Your task to perform on an android device: change text size in settings app Image 0: 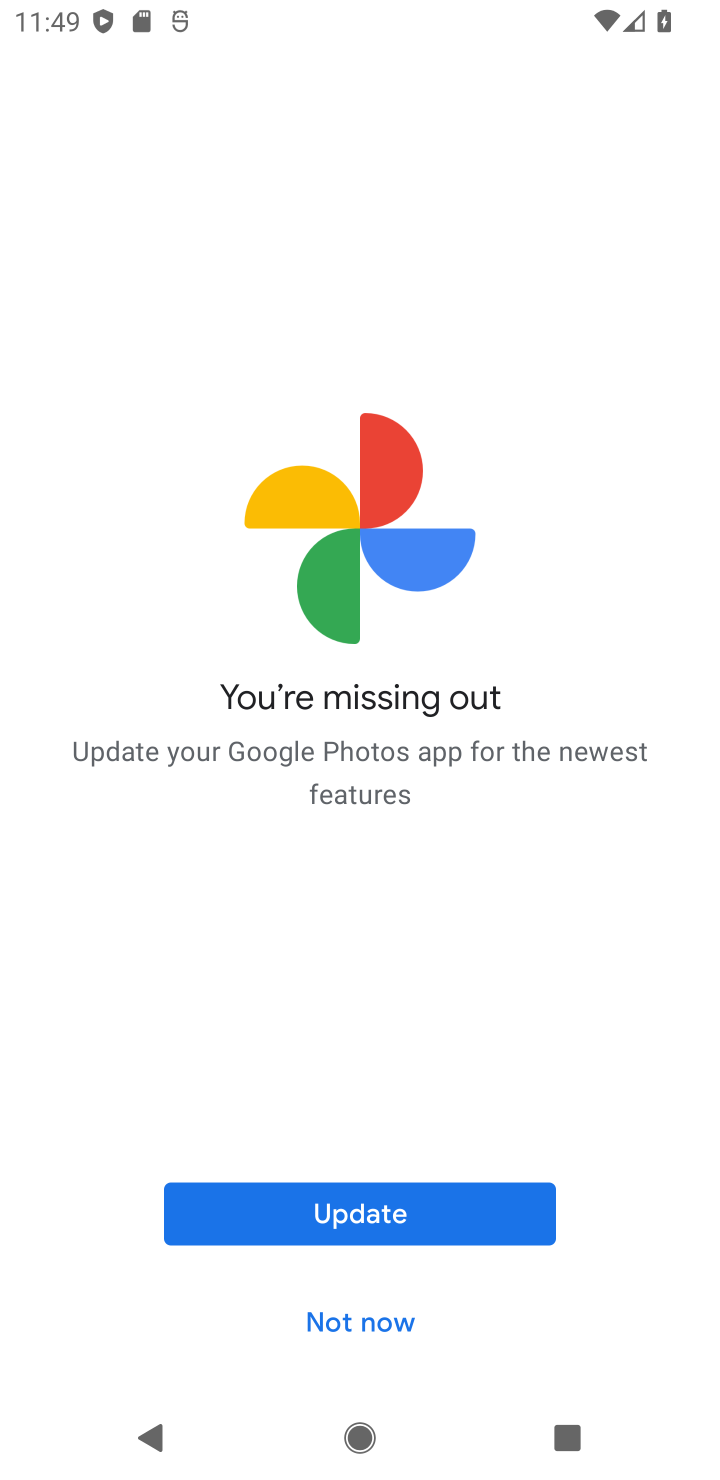
Step 0: press home button
Your task to perform on an android device: change text size in settings app Image 1: 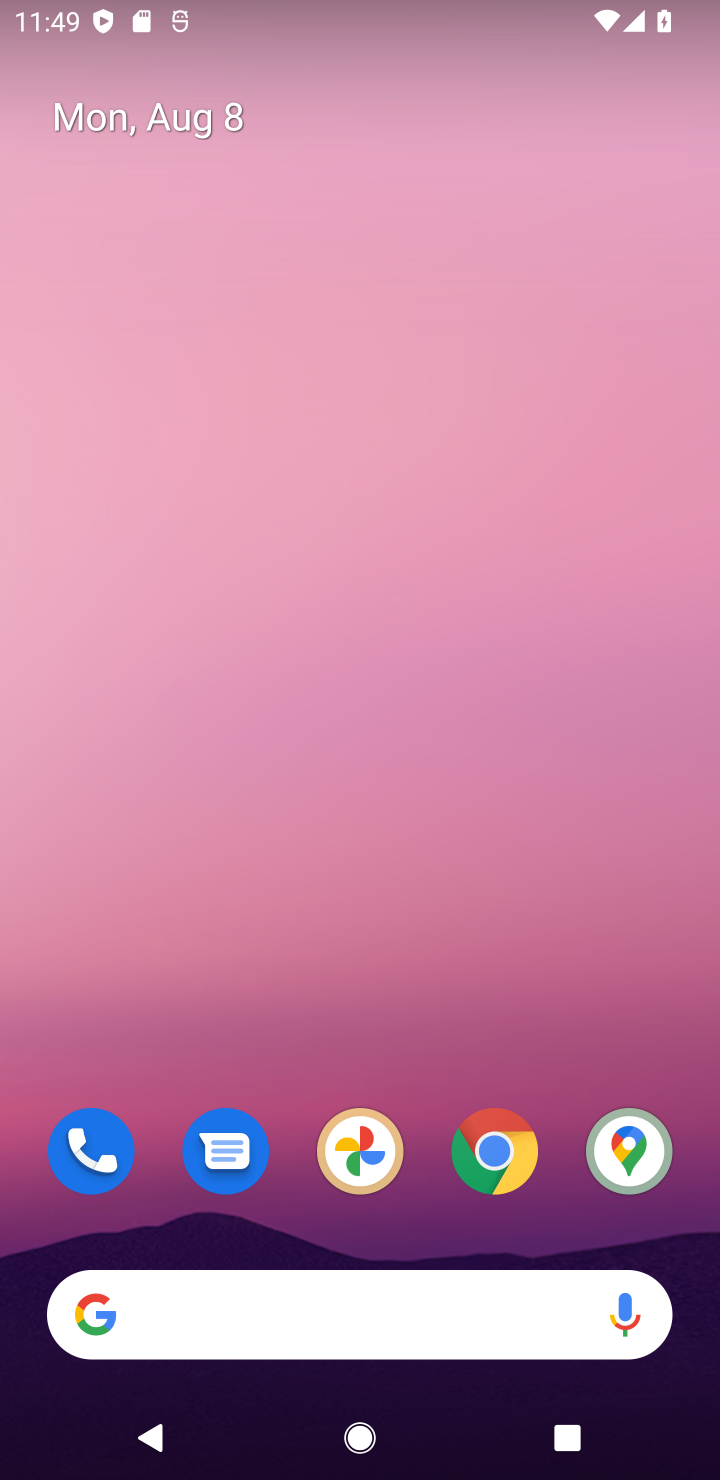
Step 1: drag from (395, 1293) to (252, 701)
Your task to perform on an android device: change text size in settings app Image 2: 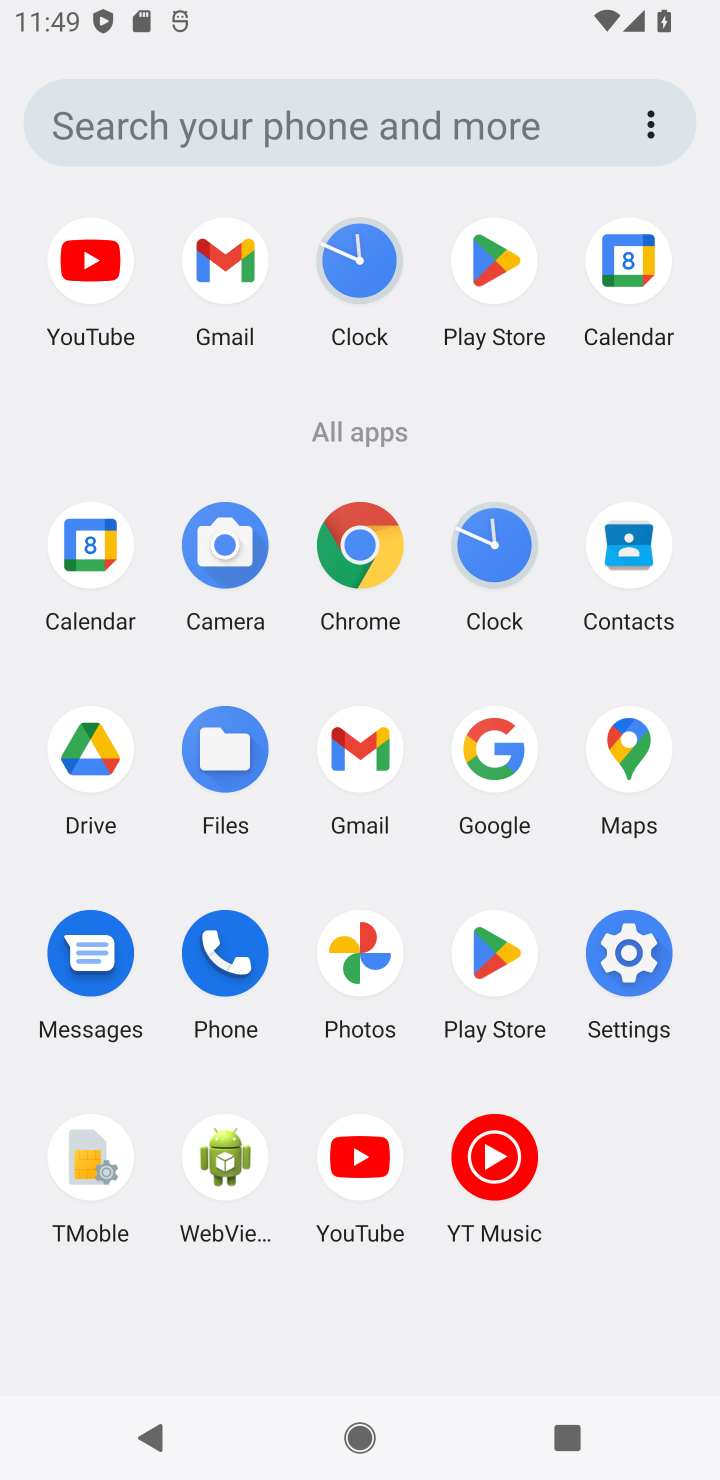
Step 2: click (587, 937)
Your task to perform on an android device: change text size in settings app Image 3: 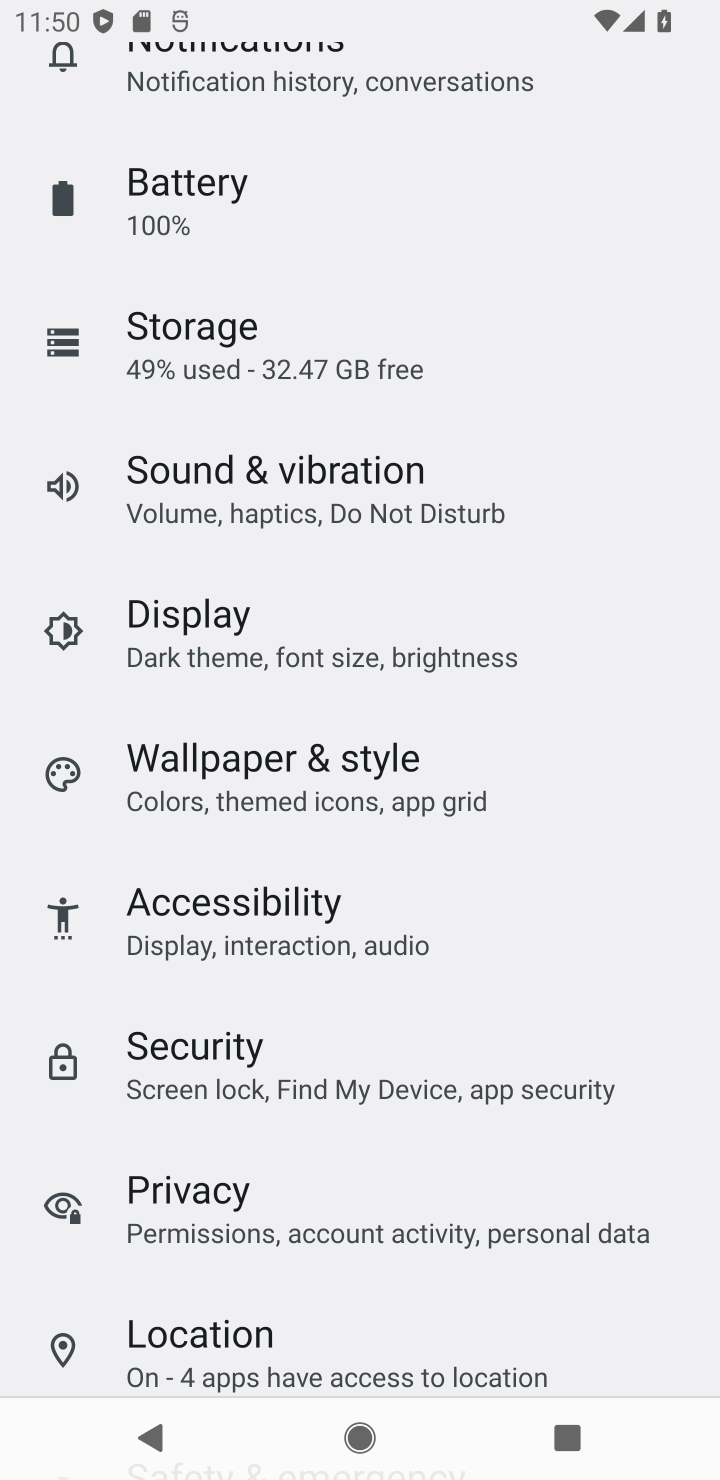
Step 3: click (283, 936)
Your task to perform on an android device: change text size in settings app Image 4: 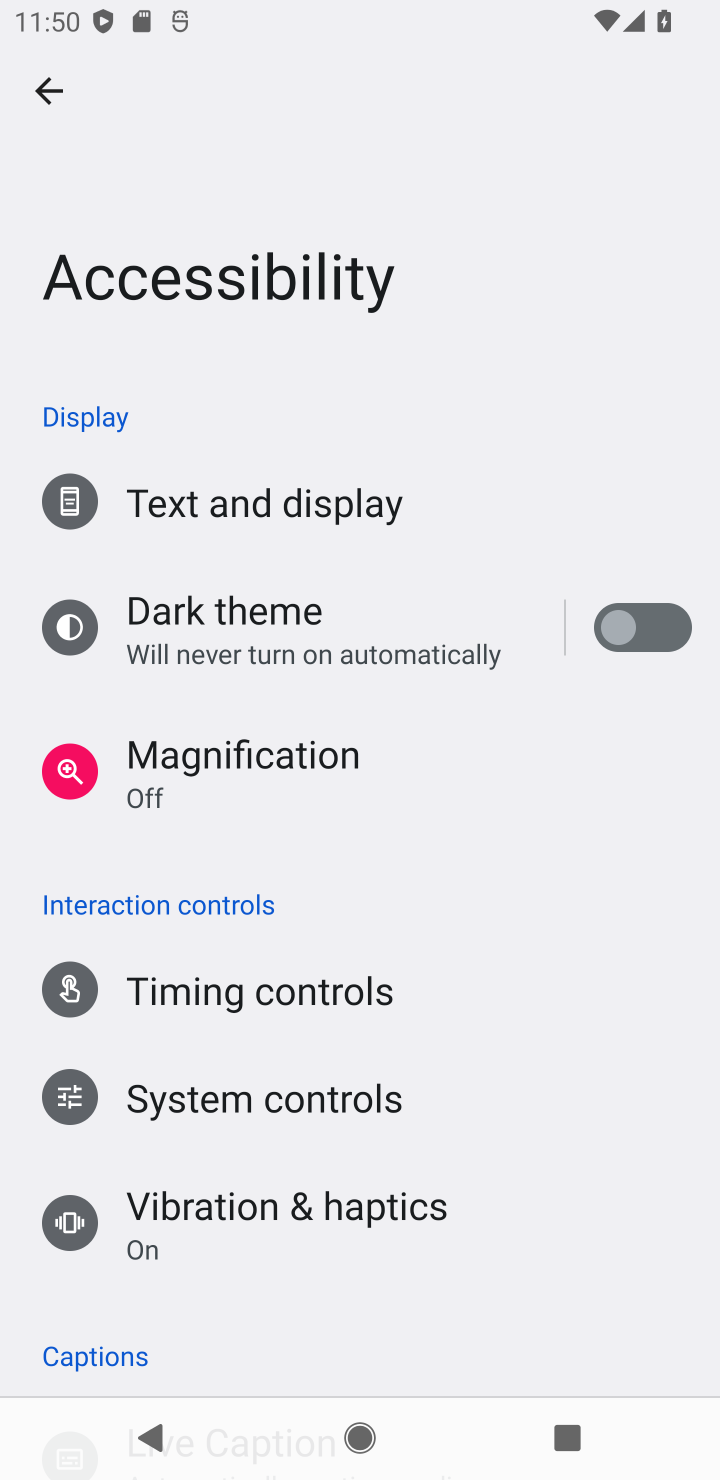
Step 4: click (185, 530)
Your task to perform on an android device: change text size in settings app Image 5: 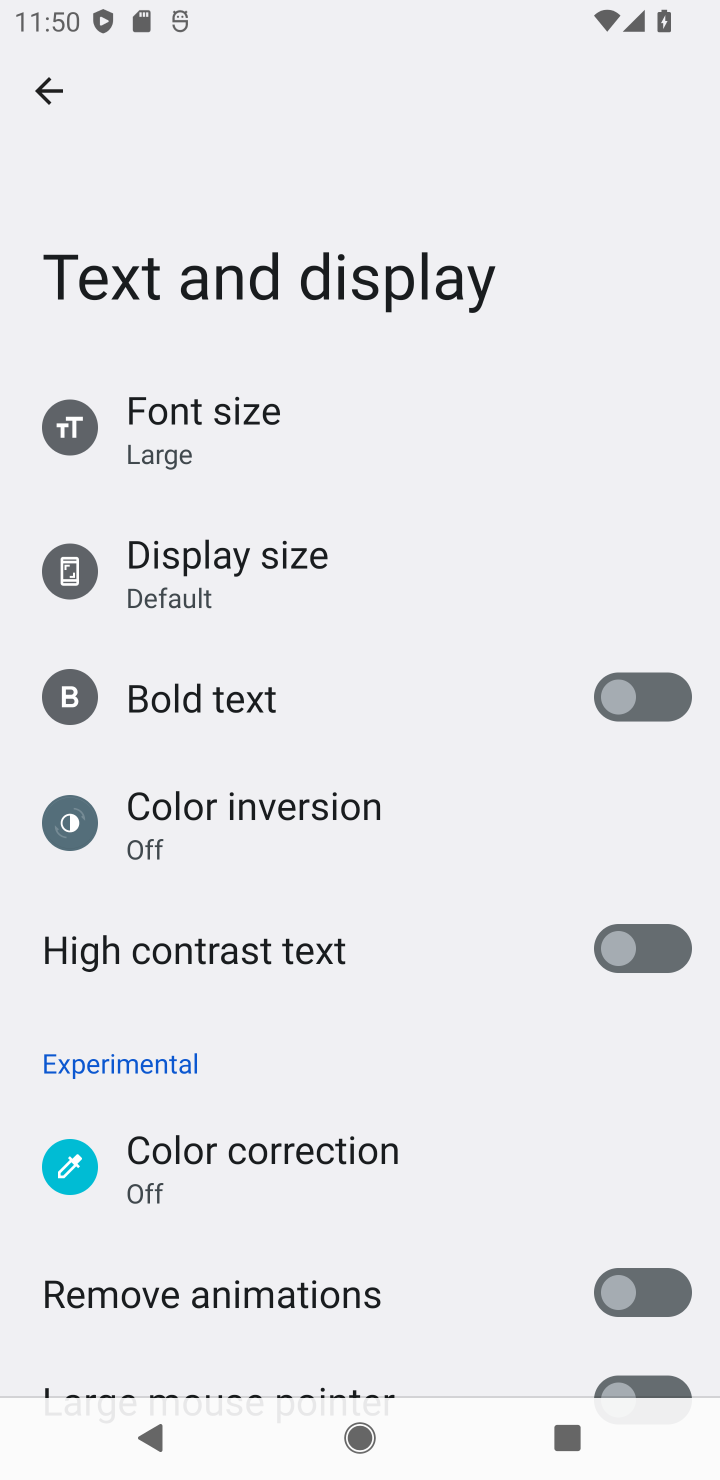
Step 5: click (189, 438)
Your task to perform on an android device: change text size in settings app Image 6: 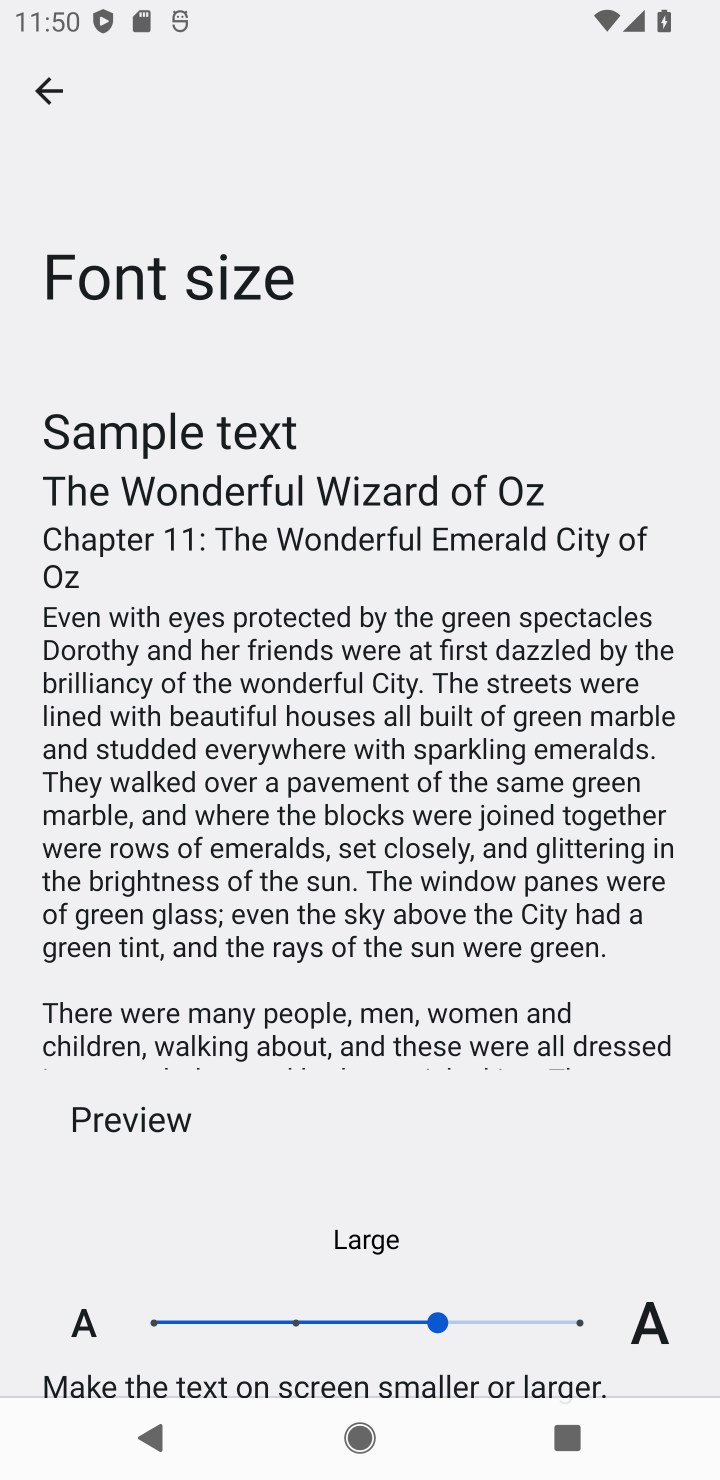
Step 6: click (403, 1323)
Your task to perform on an android device: change text size in settings app Image 7: 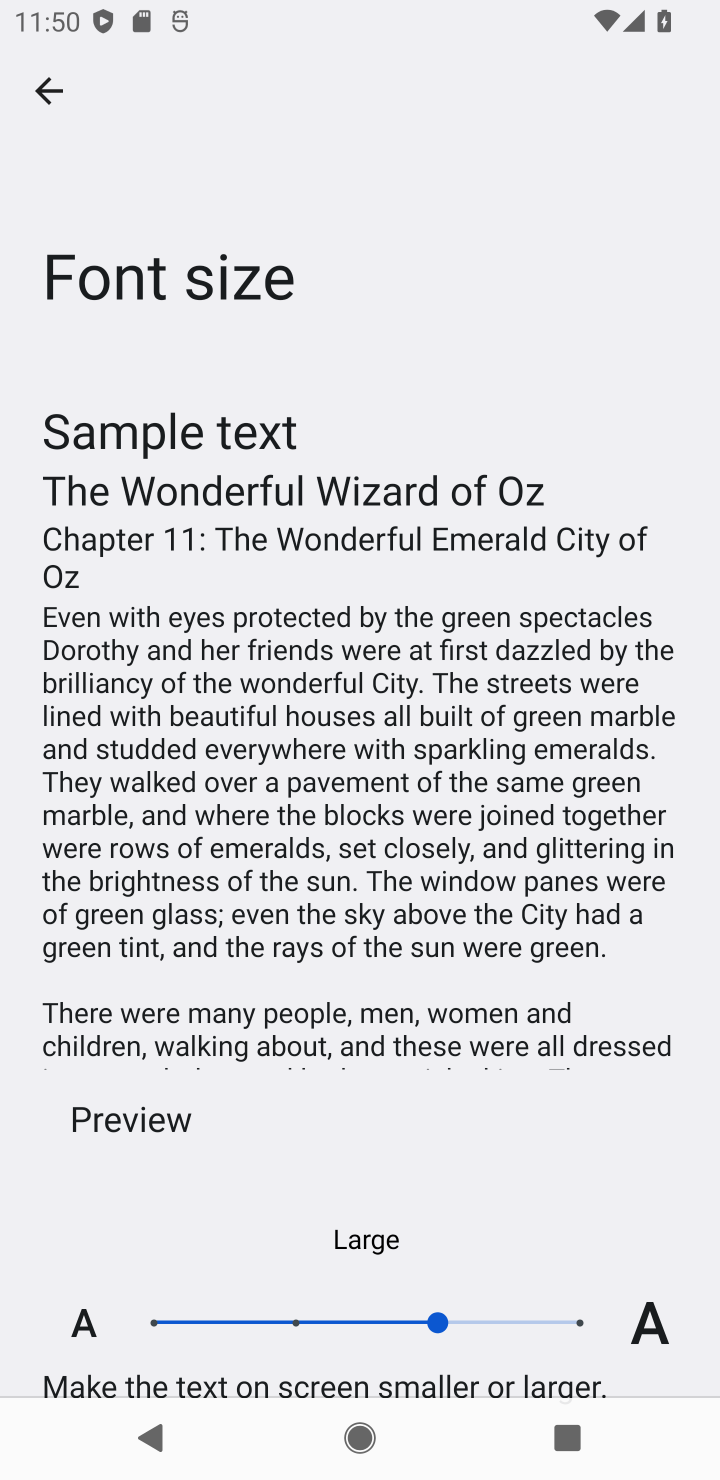
Step 7: click (408, 1324)
Your task to perform on an android device: change text size in settings app Image 8: 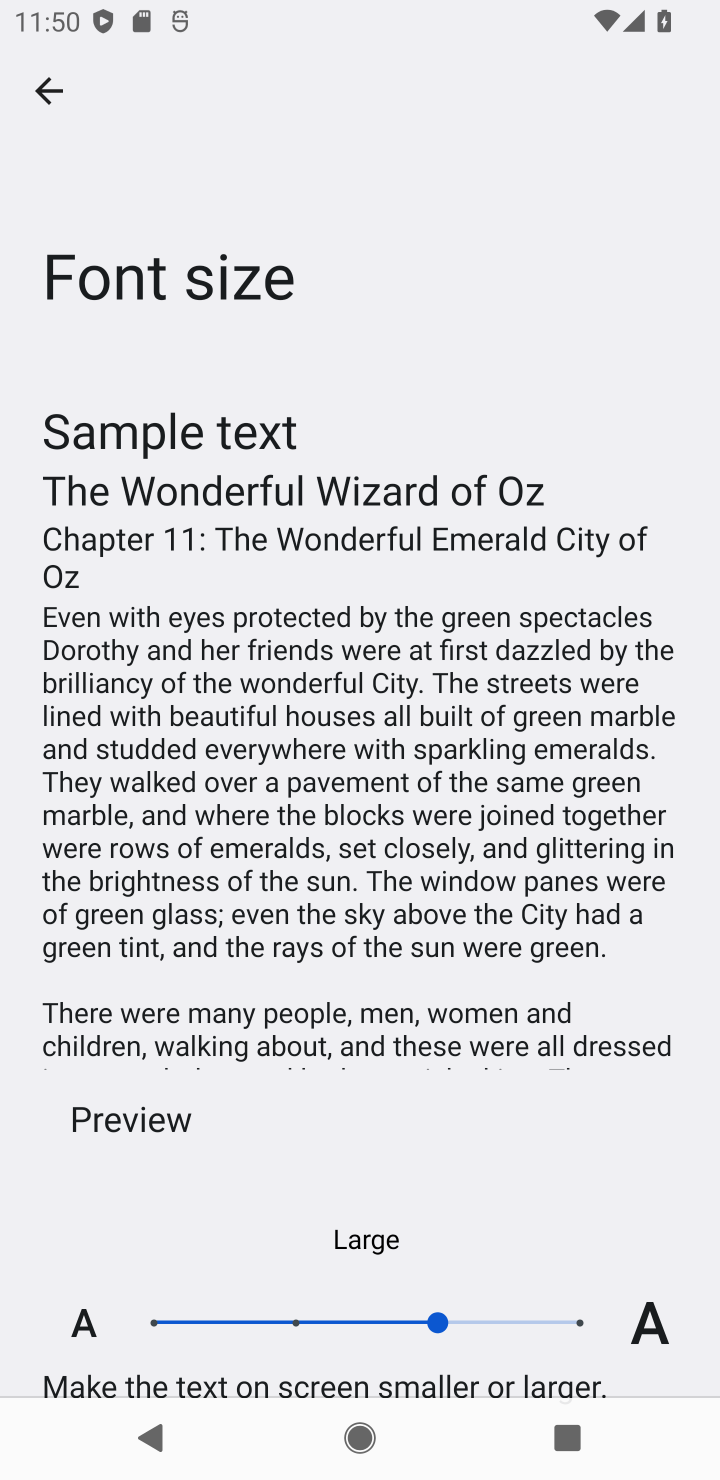
Step 8: click (430, 1319)
Your task to perform on an android device: change text size in settings app Image 9: 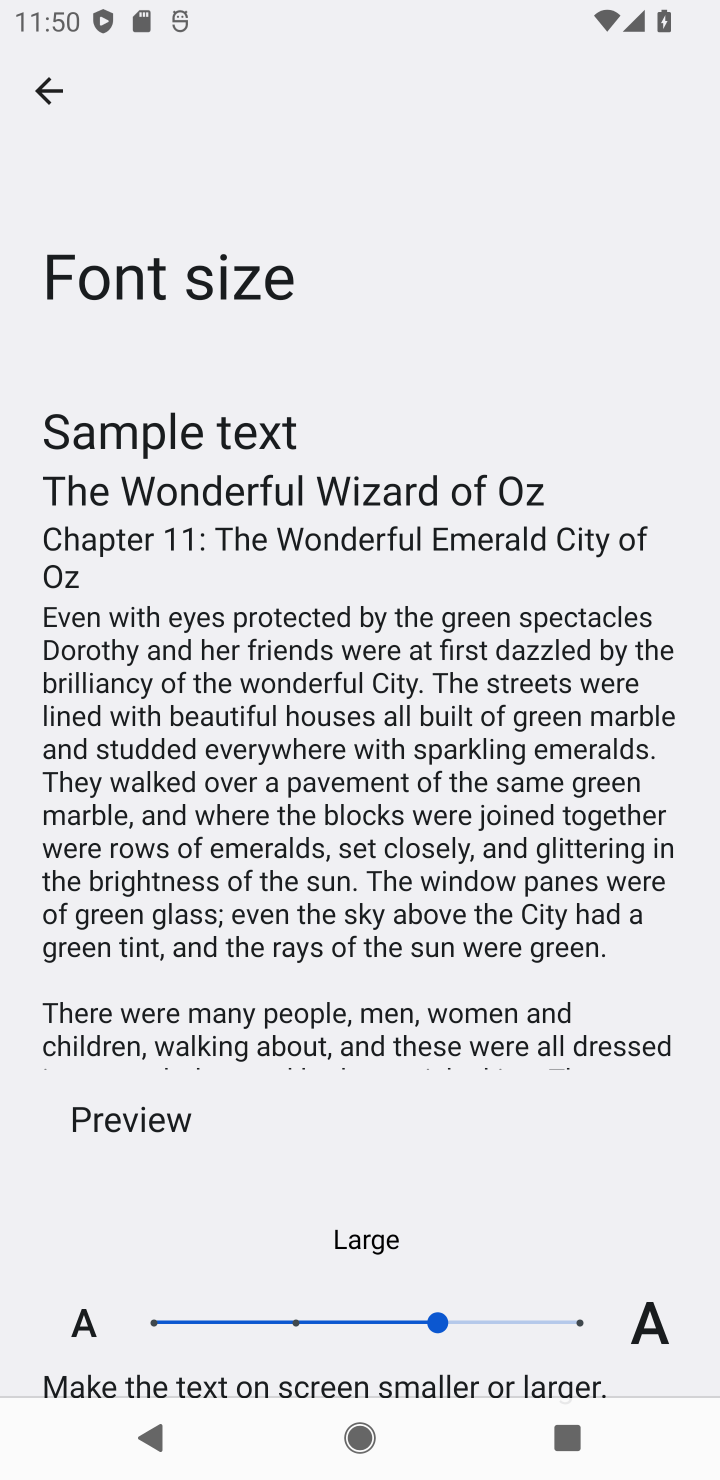
Step 9: click (392, 1305)
Your task to perform on an android device: change text size in settings app Image 10: 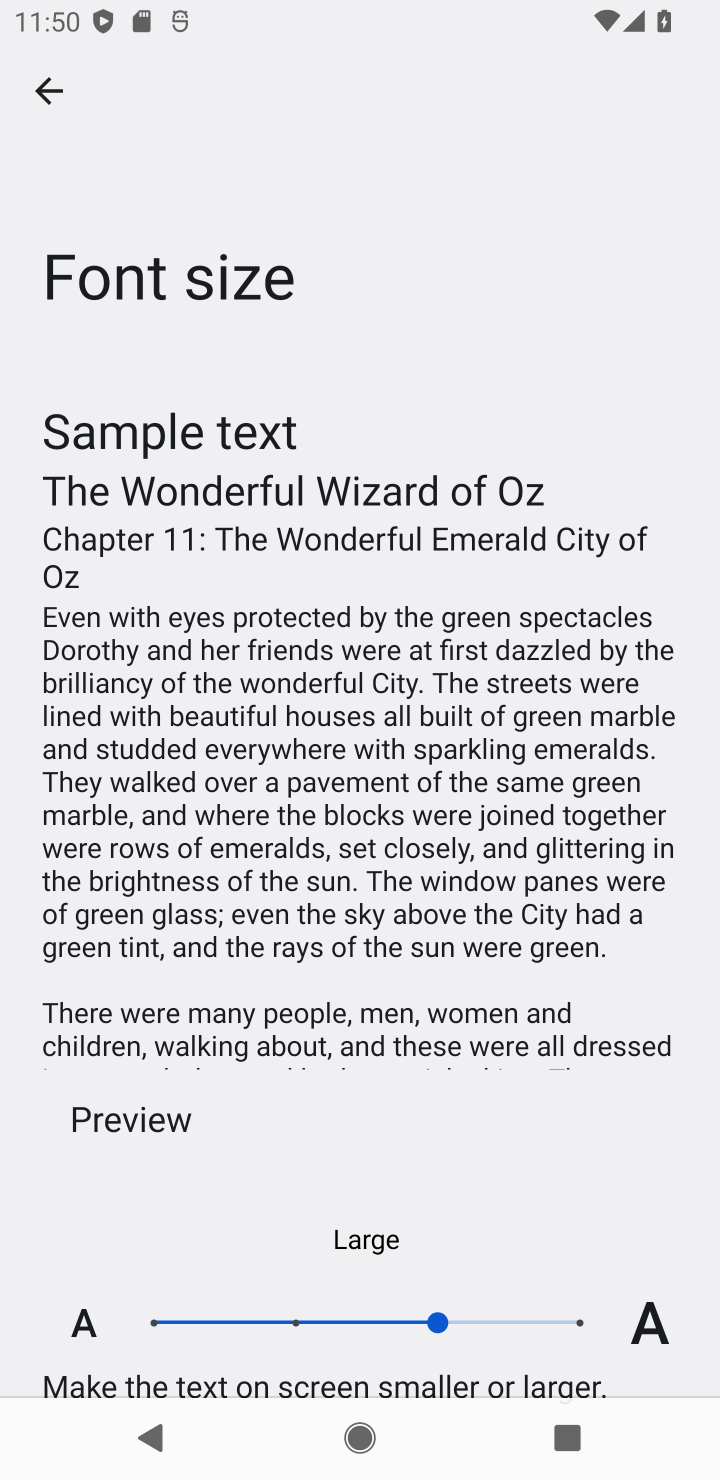
Step 10: click (518, 1327)
Your task to perform on an android device: change text size in settings app Image 11: 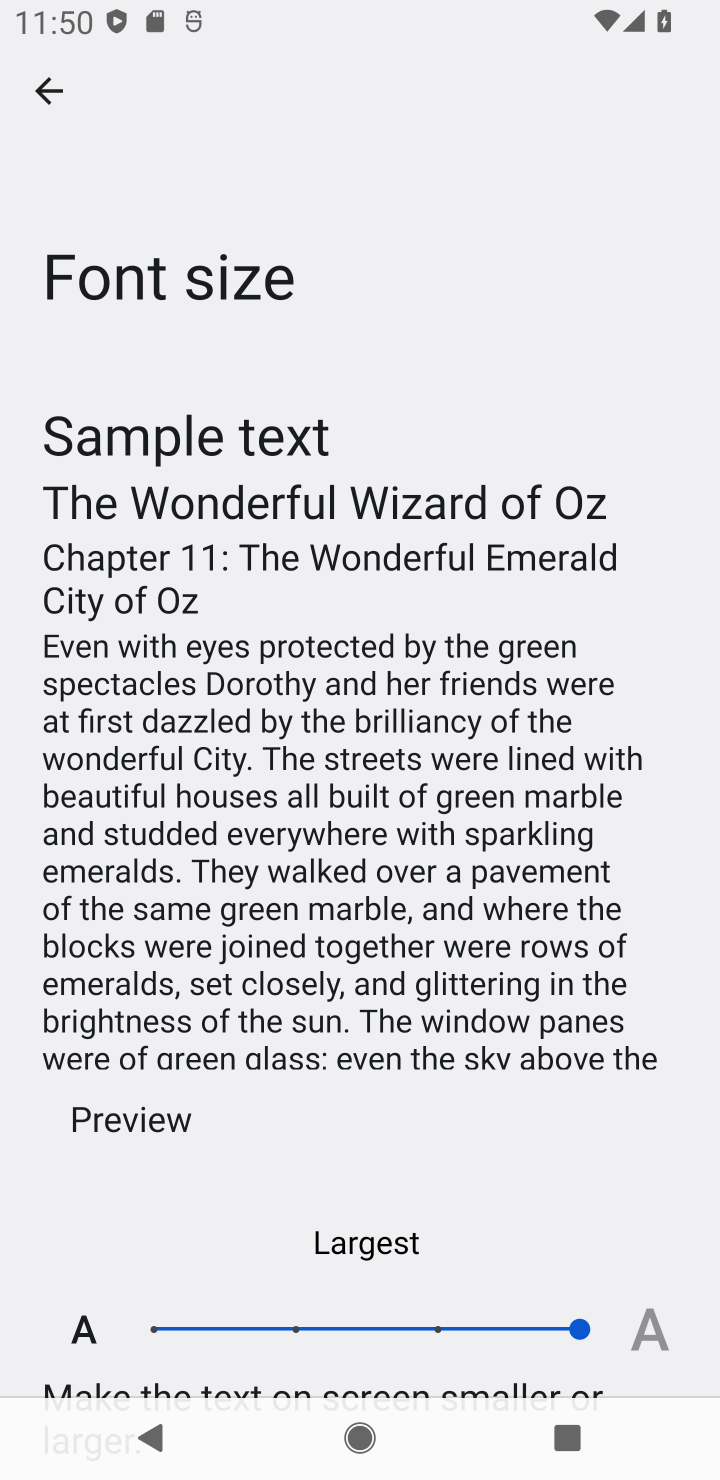
Step 11: task complete